Your task to perform on an android device: change text size in settings app Image 0: 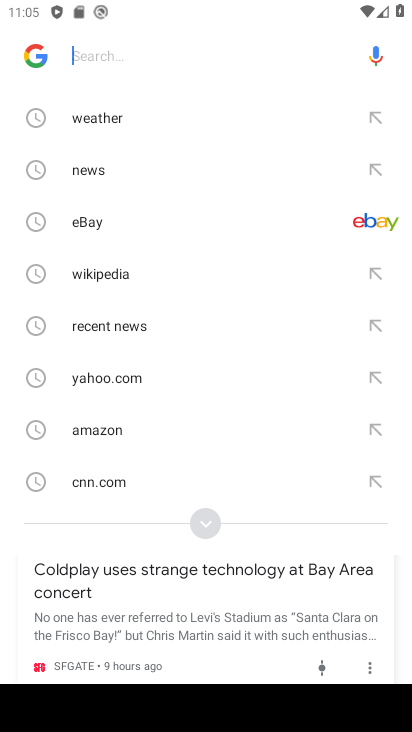
Step 0: press home button
Your task to perform on an android device: change text size in settings app Image 1: 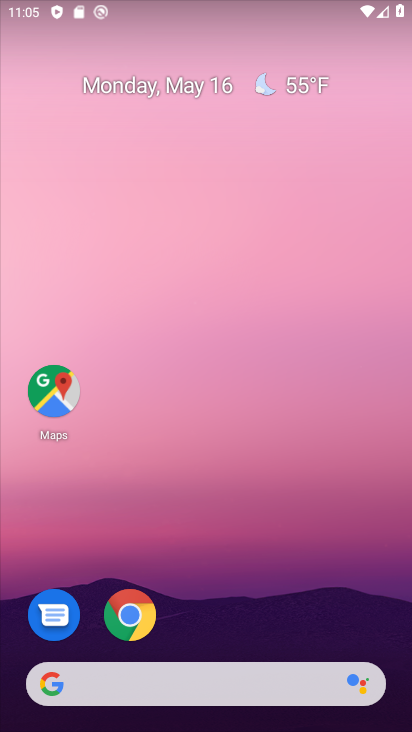
Step 1: drag from (219, 628) to (283, 137)
Your task to perform on an android device: change text size in settings app Image 2: 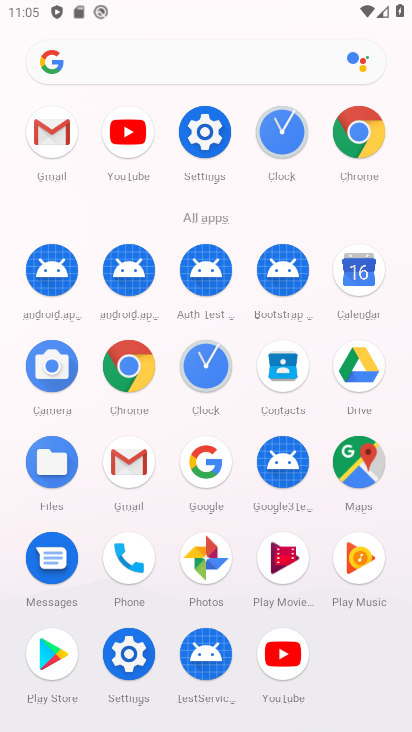
Step 2: click (207, 139)
Your task to perform on an android device: change text size in settings app Image 3: 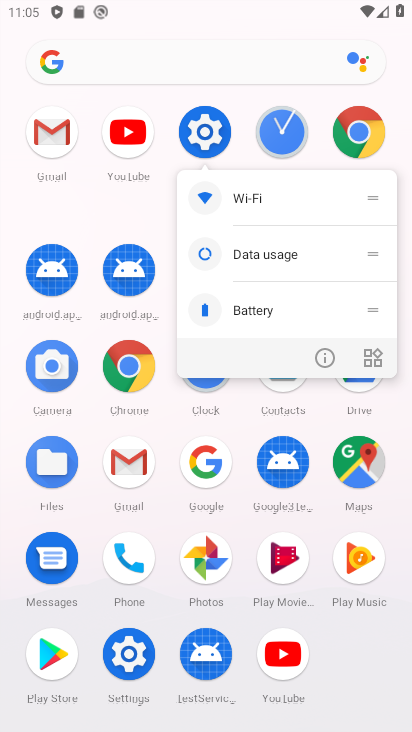
Step 3: click (207, 139)
Your task to perform on an android device: change text size in settings app Image 4: 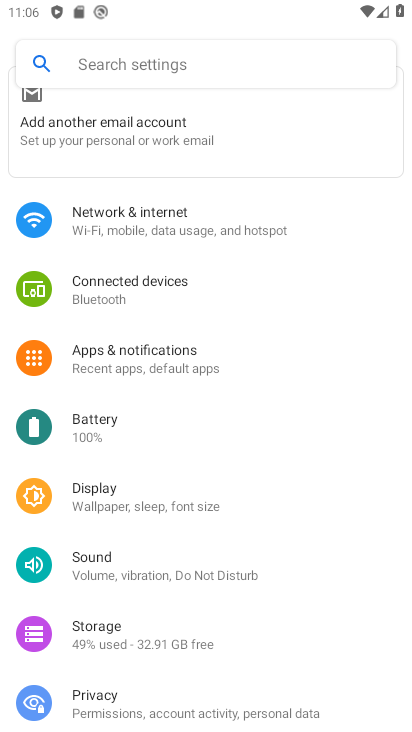
Step 4: click (153, 503)
Your task to perform on an android device: change text size in settings app Image 5: 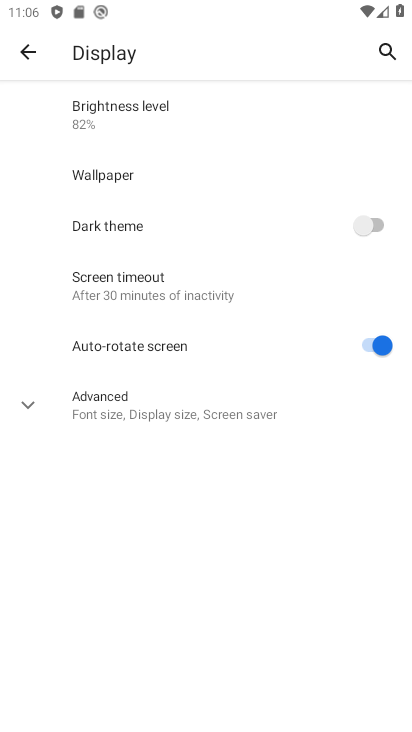
Step 5: click (121, 409)
Your task to perform on an android device: change text size in settings app Image 6: 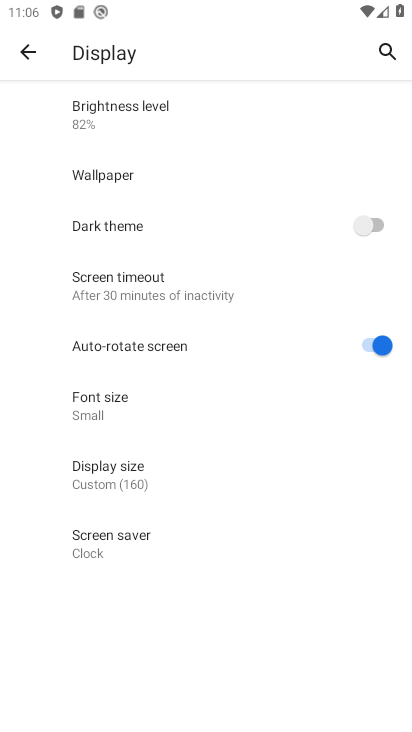
Step 6: click (95, 412)
Your task to perform on an android device: change text size in settings app Image 7: 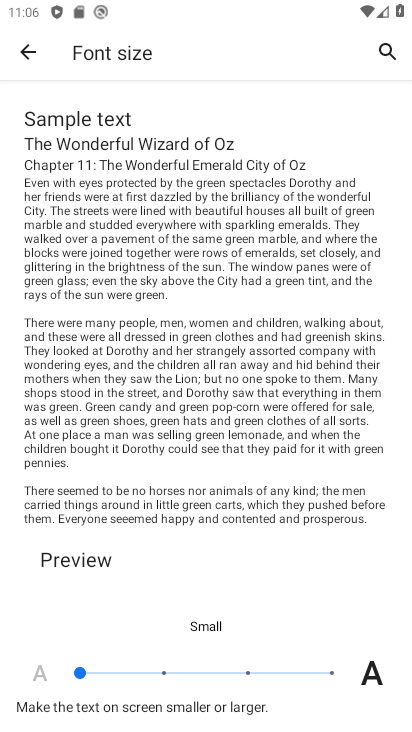
Step 7: click (128, 669)
Your task to perform on an android device: change text size in settings app Image 8: 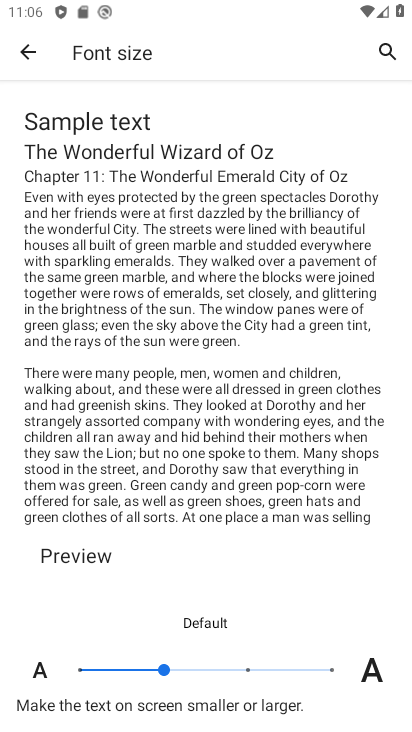
Step 8: task complete